Your task to perform on an android device: visit the assistant section in the google photos Image 0: 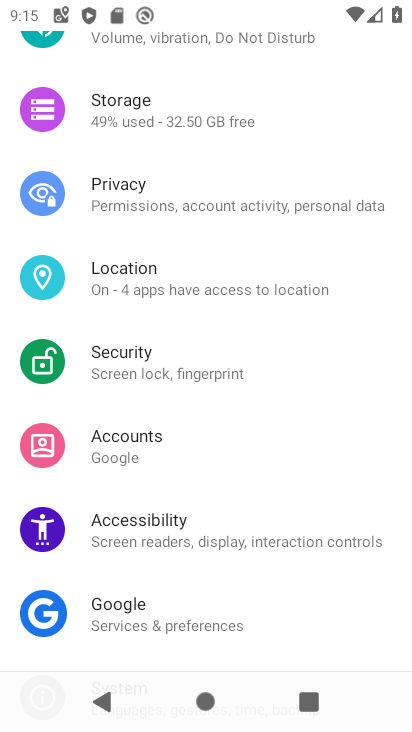
Step 0: drag from (207, 168) to (260, 513)
Your task to perform on an android device: visit the assistant section in the google photos Image 1: 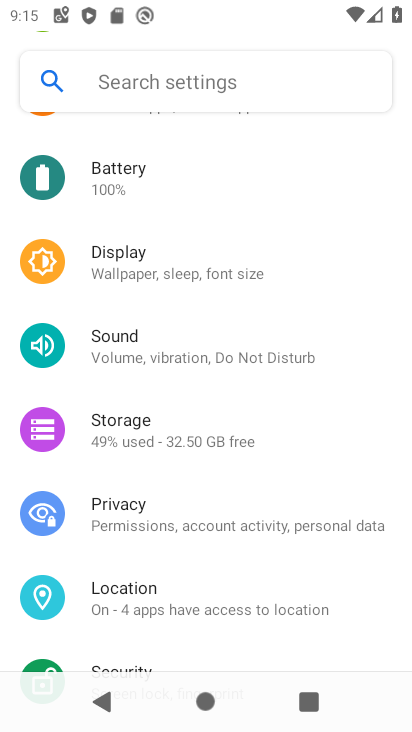
Step 1: drag from (238, 316) to (255, 497)
Your task to perform on an android device: visit the assistant section in the google photos Image 2: 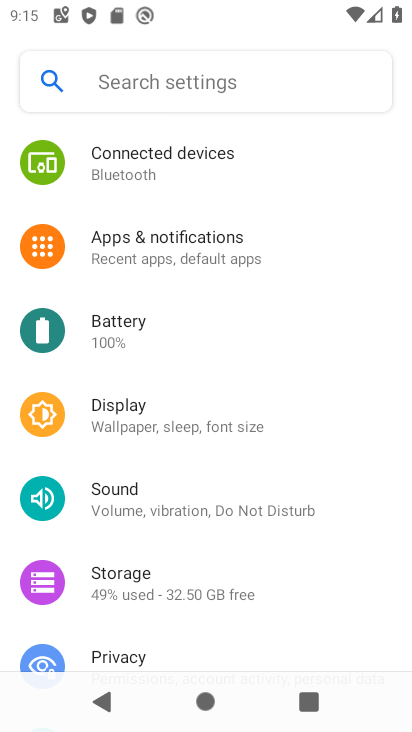
Step 2: press home button
Your task to perform on an android device: visit the assistant section in the google photos Image 3: 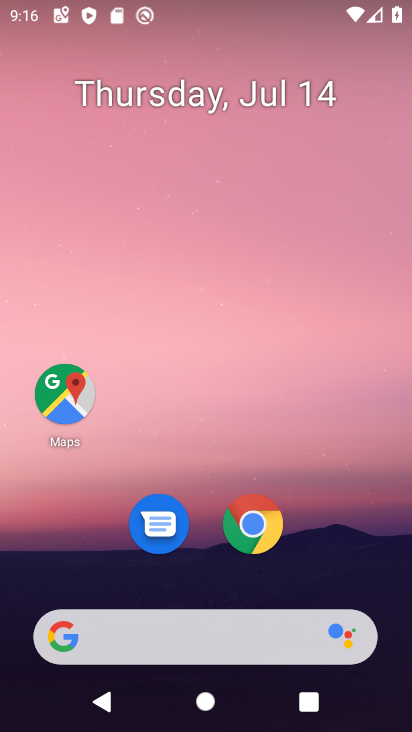
Step 3: drag from (297, 566) to (293, 54)
Your task to perform on an android device: visit the assistant section in the google photos Image 4: 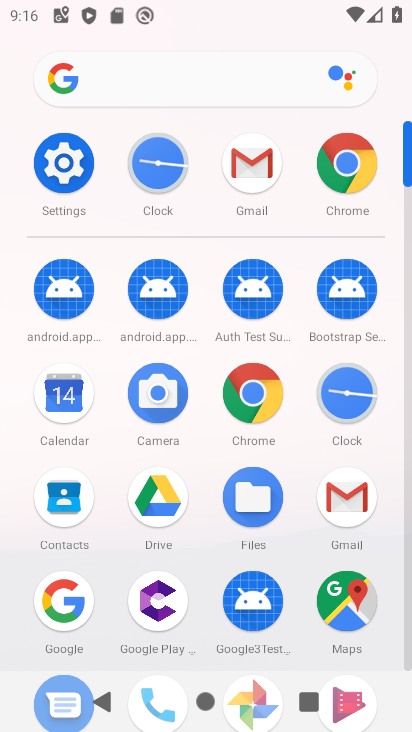
Step 4: drag from (214, 455) to (203, 108)
Your task to perform on an android device: visit the assistant section in the google photos Image 5: 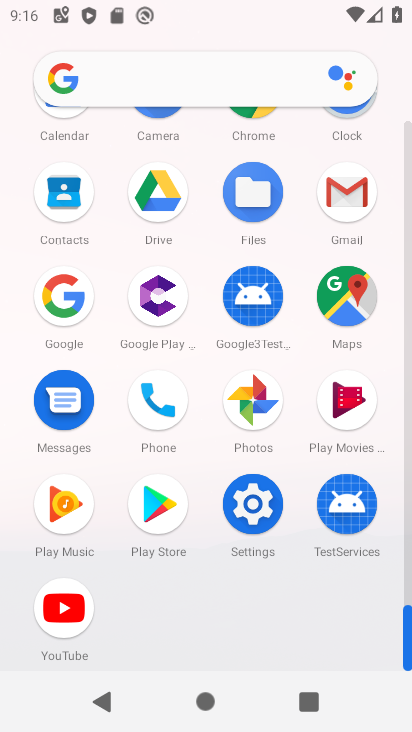
Step 5: click (254, 413)
Your task to perform on an android device: visit the assistant section in the google photos Image 6: 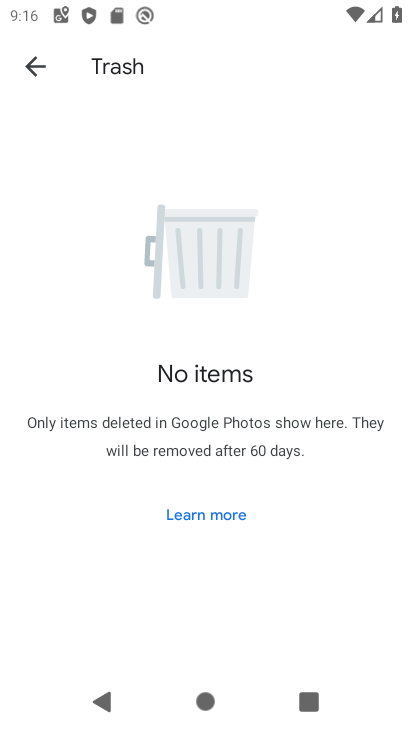
Step 6: click (28, 55)
Your task to perform on an android device: visit the assistant section in the google photos Image 7: 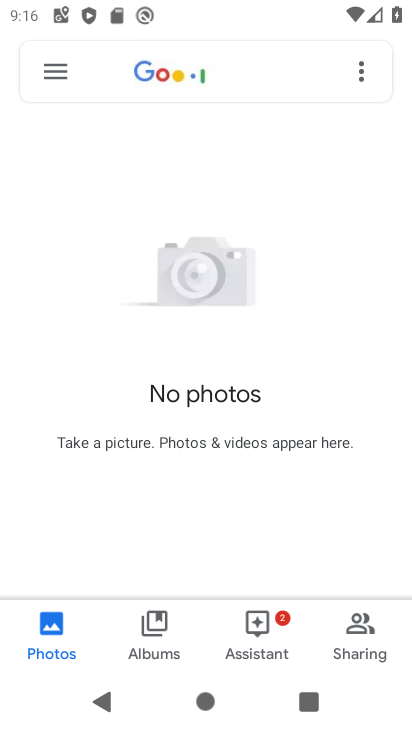
Step 7: click (268, 636)
Your task to perform on an android device: visit the assistant section in the google photos Image 8: 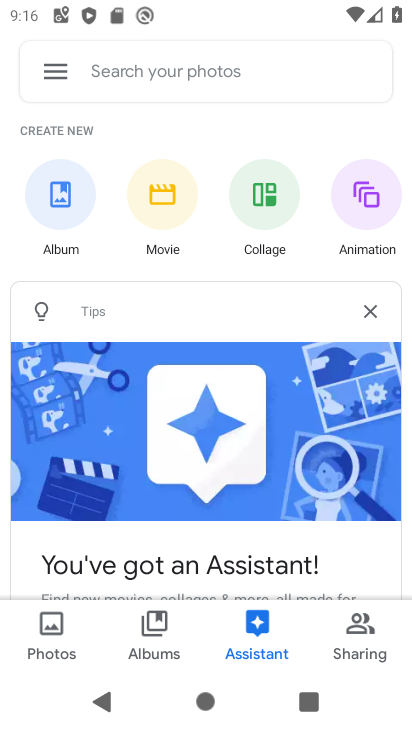
Step 8: task complete